Your task to perform on an android device: turn vacation reply on in the gmail app Image 0: 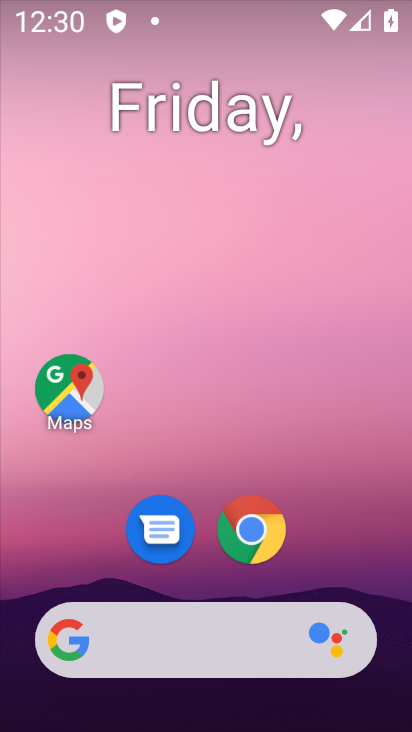
Step 0: drag from (271, 596) to (253, 180)
Your task to perform on an android device: turn vacation reply on in the gmail app Image 1: 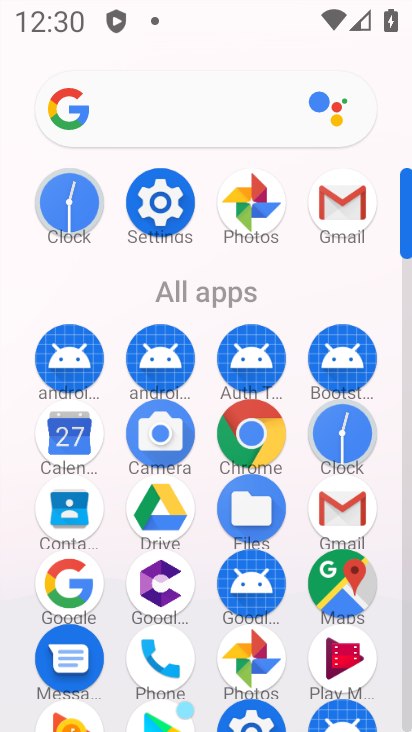
Step 1: click (331, 216)
Your task to perform on an android device: turn vacation reply on in the gmail app Image 2: 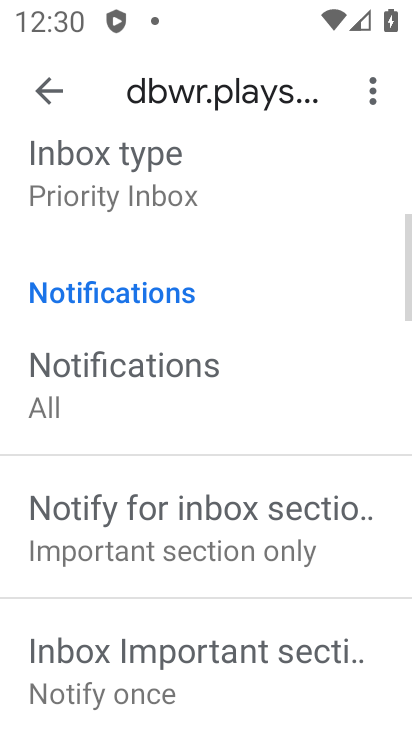
Step 2: drag from (147, 694) to (178, 291)
Your task to perform on an android device: turn vacation reply on in the gmail app Image 3: 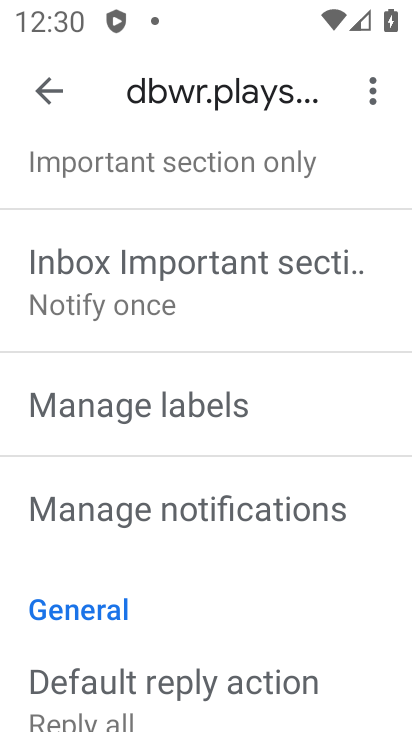
Step 3: drag from (157, 585) to (179, 388)
Your task to perform on an android device: turn vacation reply on in the gmail app Image 4: 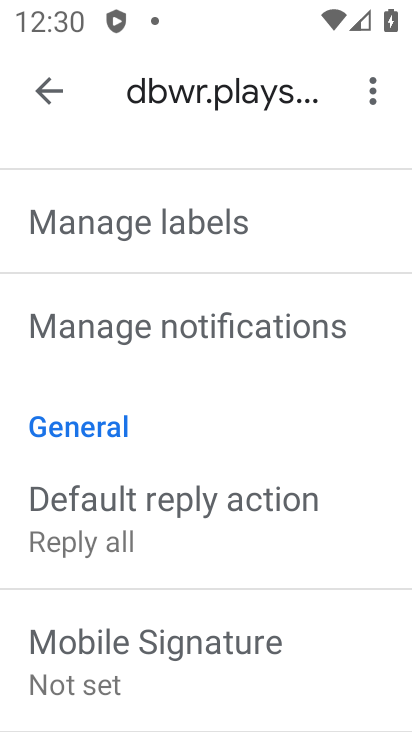
Step 4: drag from (144, 703) to (142, 395)
Your task to perform on an android device: turn vacation reply on in the gmail app Image 5: 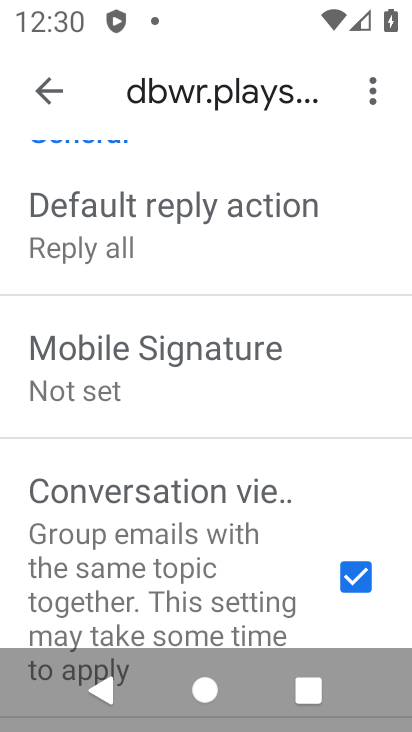
Step 5: drag from (187, 417) to (185, 194)
Your task to perform on an android device: turn vacation reply on in the gmail app Image 6: 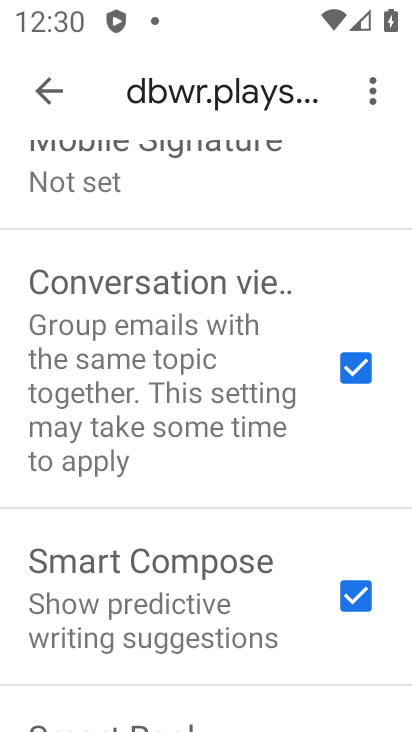
Step 6: drag from (178, 609) to (176, 297)
Your task to perform on an android device: turn vacation reply on in the gmail app Image 7: 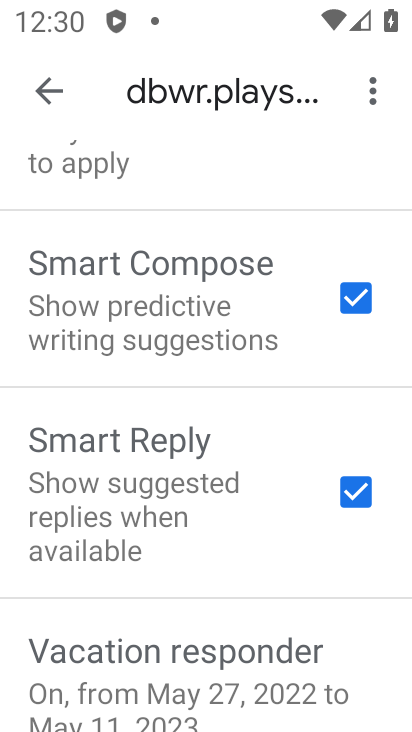
Step 7: click (192, 680)
Your task to perform on an android device: turn vacation reply on in the gmail app Image 8: 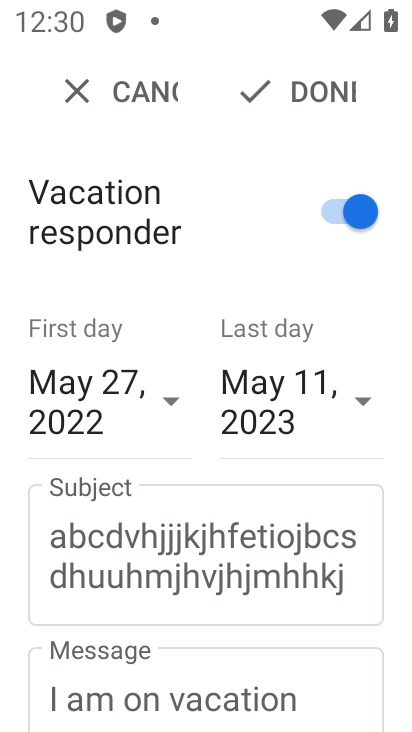
Step 8: task complete